Your task to perform on an android device: open app "Upside-Cash back on gas & food" Image 0: 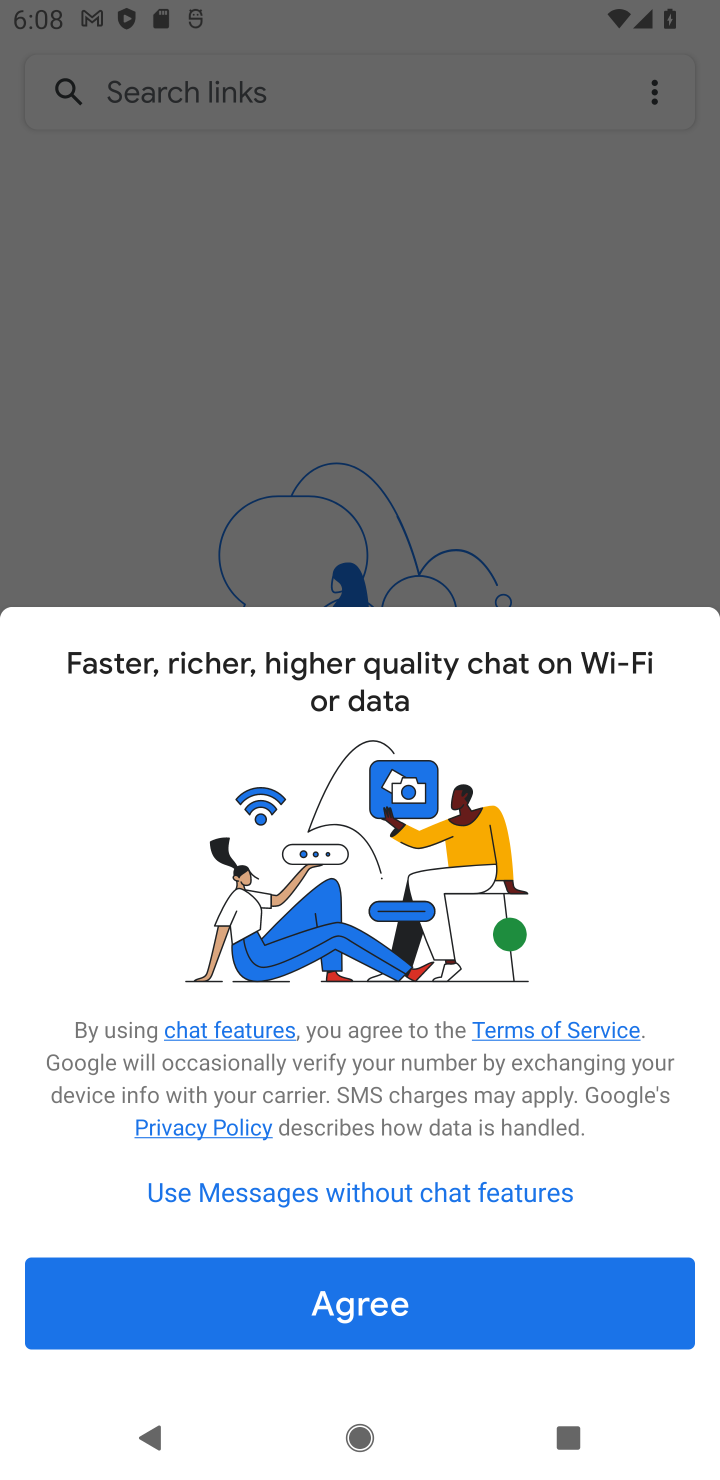
Step 0: press home button
Your task to perform on an android device: open app "Upside-Cash back on gas & food" Image 1: 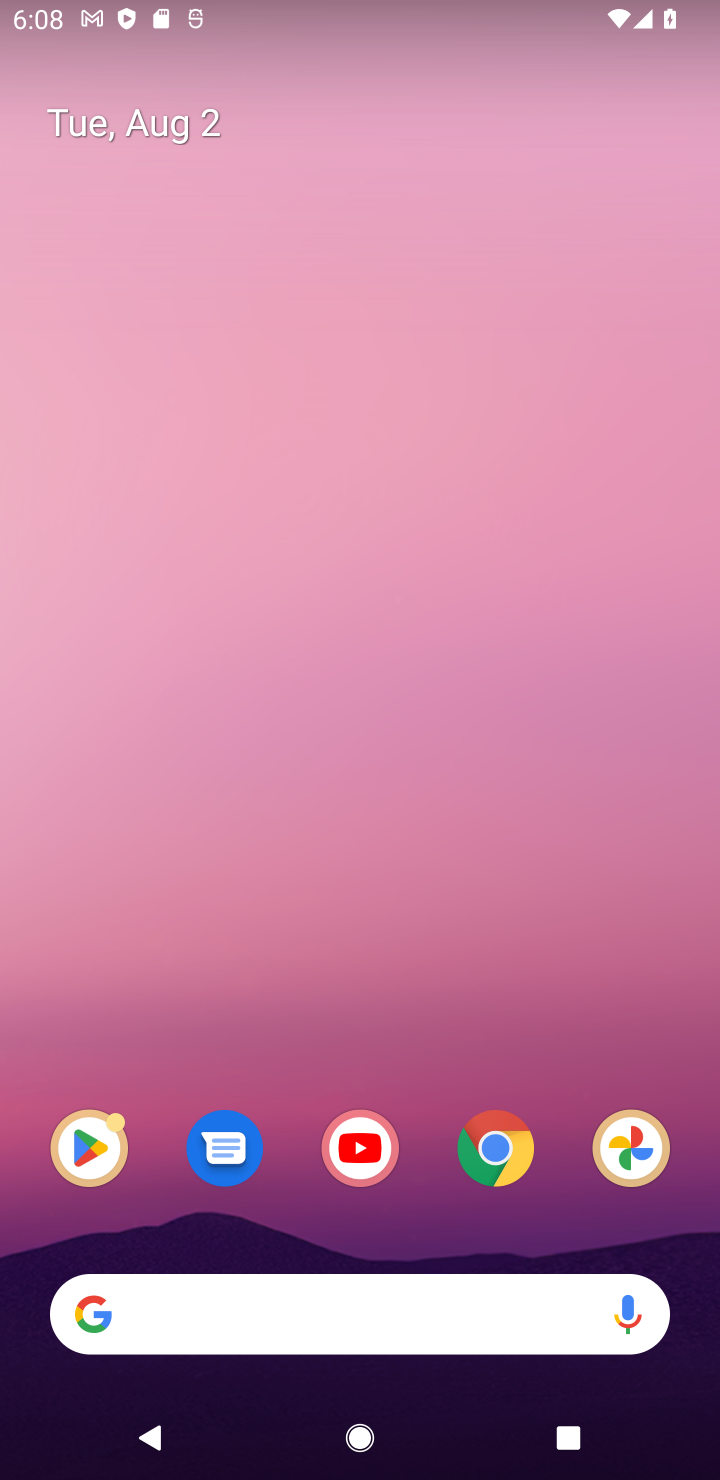
Step 1: drag from (569, 992) to (382, 63)
Your task to perform on an android device: open app "Upside-Cash back on gas & food" Image 2: 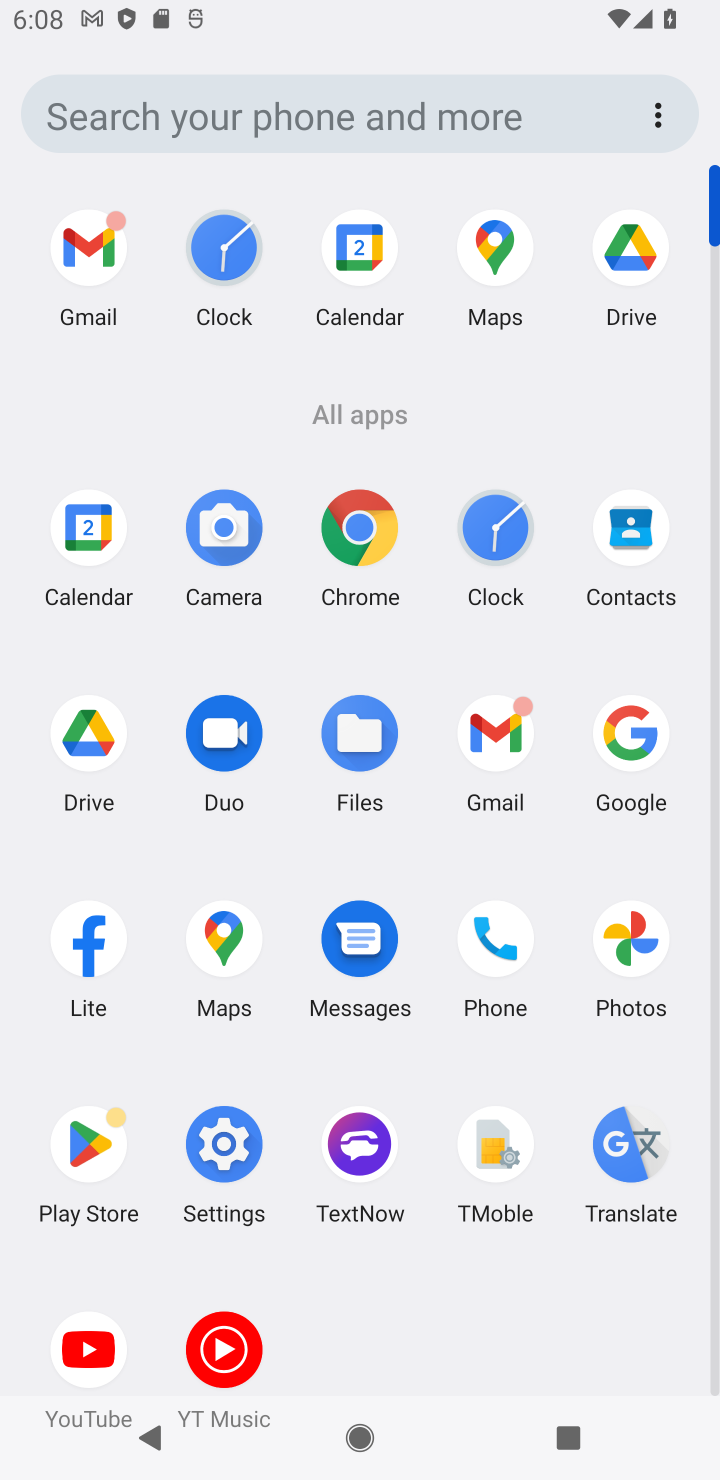
Step 2: click (65, 1158)
Your task to perform on an android device: open app "Upside-Cash back on gas & food" Image 3: 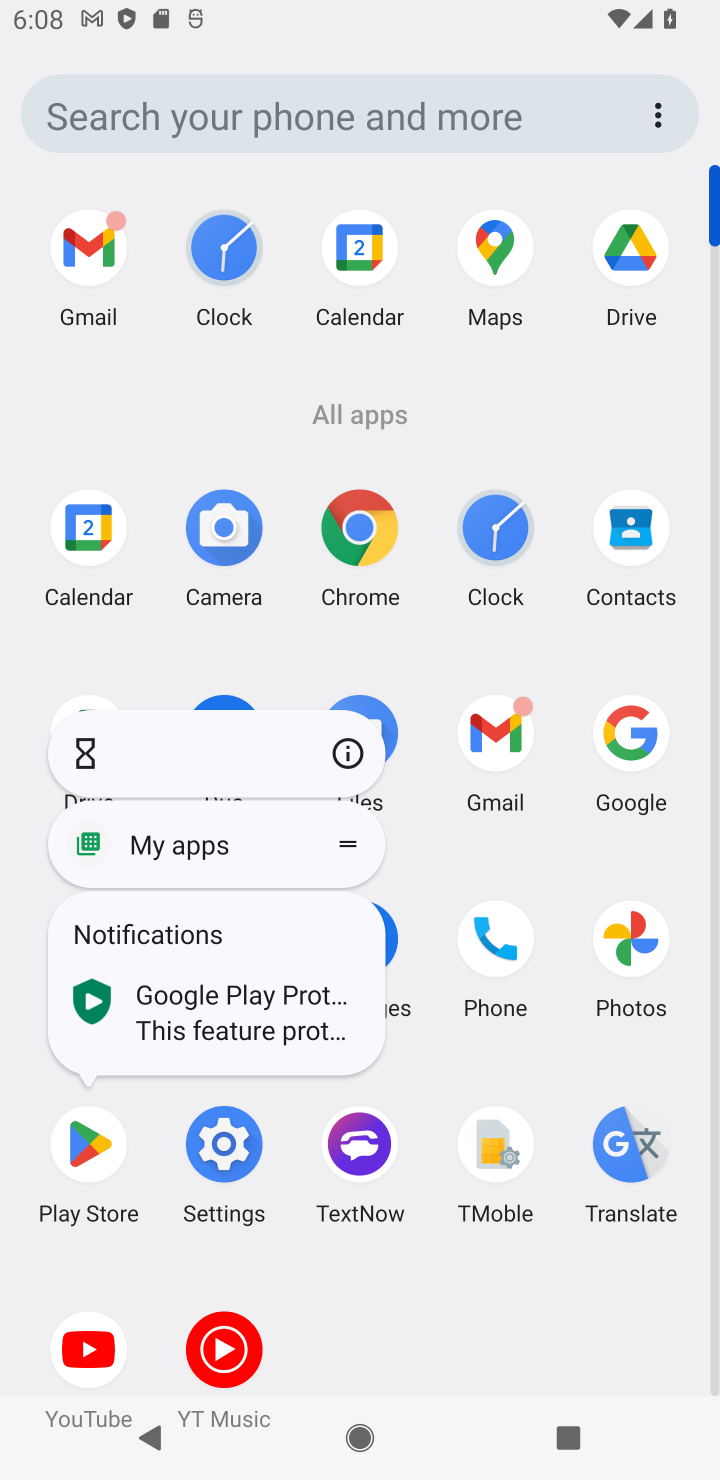
Step 3: click (91, 1163)
Your task to perform on an android device: open app "Upside-Cash back on gas & food" Image 4: 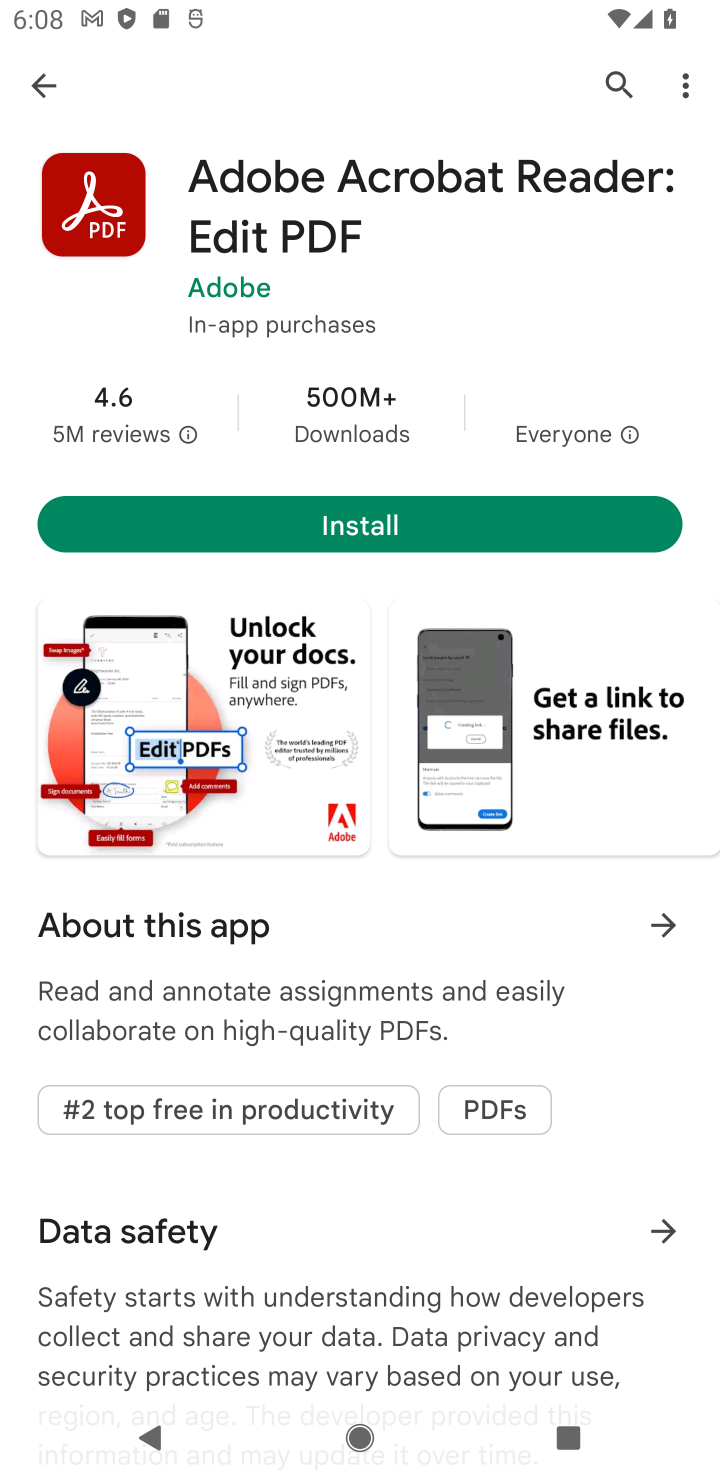
Step 4: press back button
Your task to perform on an android device: open app "Upside-Cash back on gas & food" Image 5: 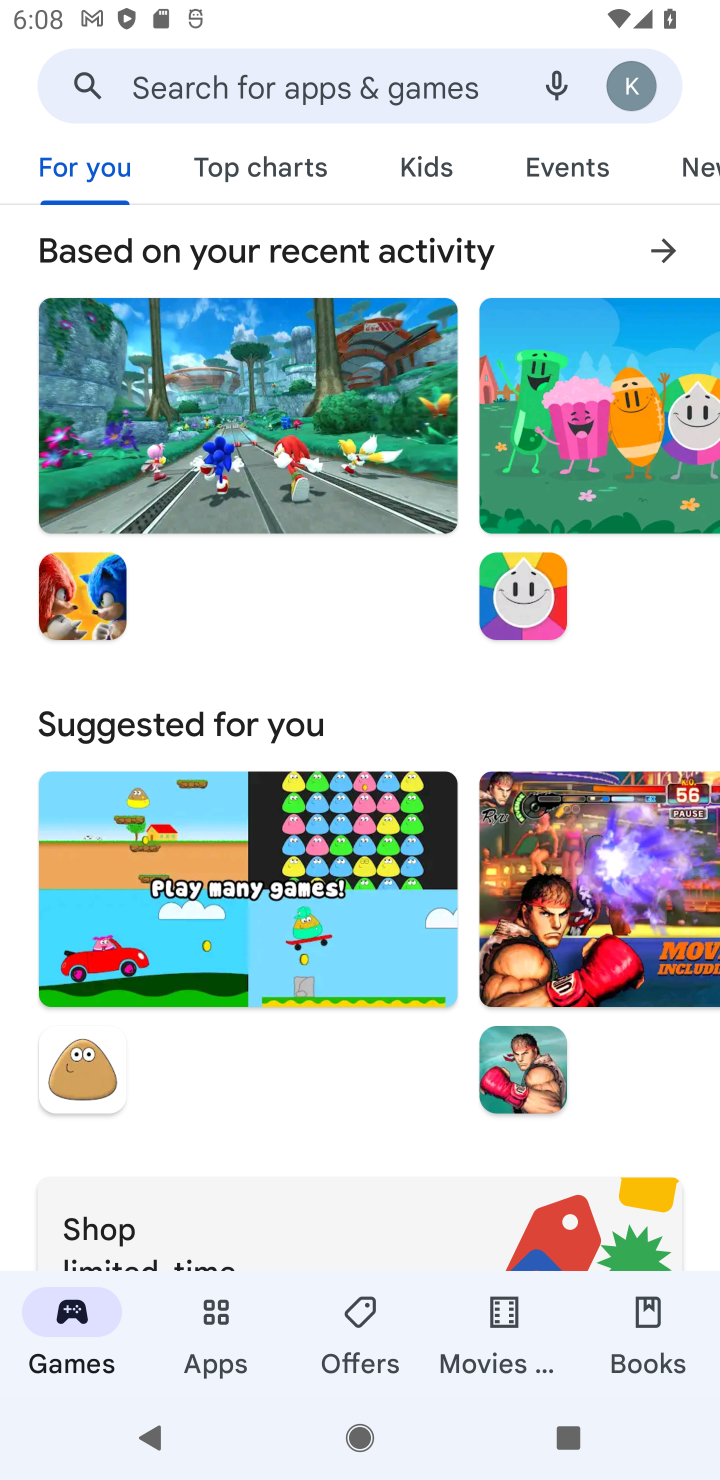
Step 5: click (380, 98)
Your task to perform on an android device: open app "Upside-Cash back on gas & food" Image 6: 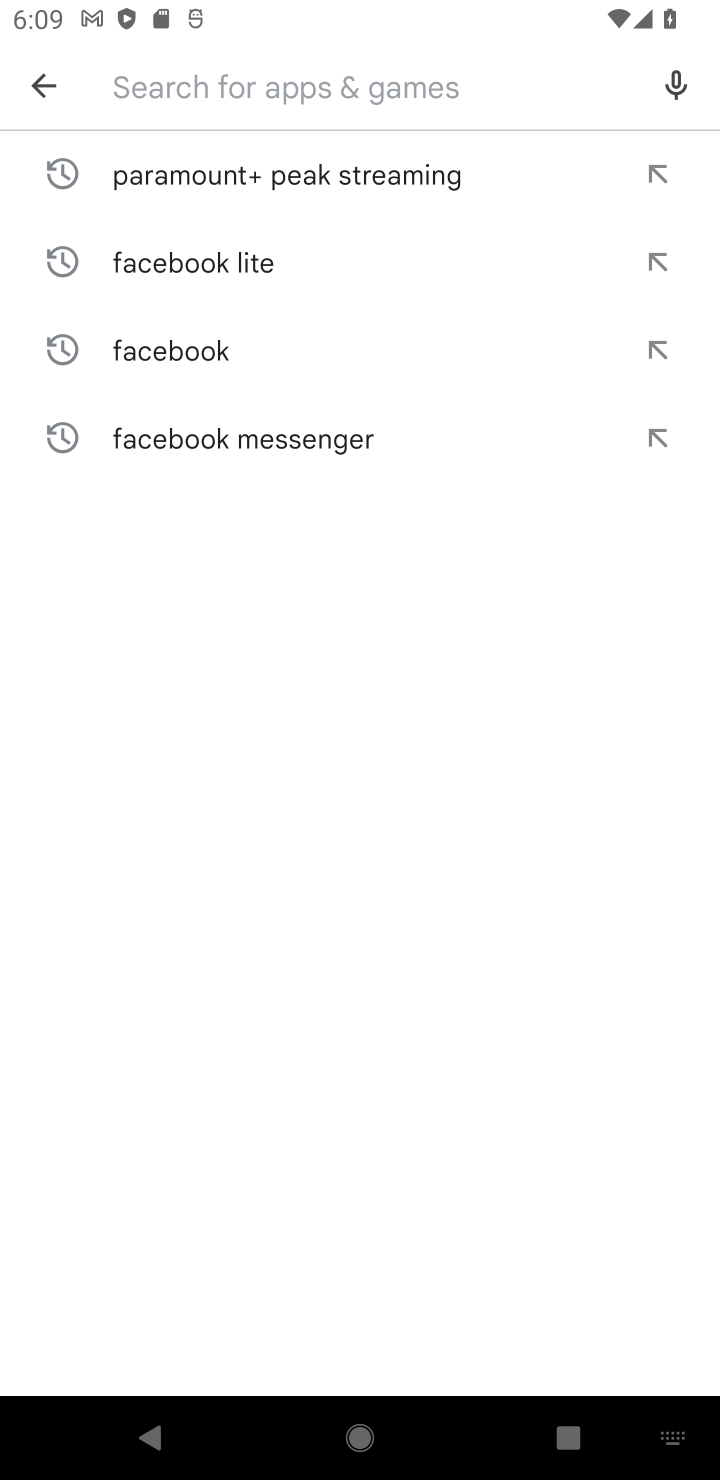
Step 6: type "Upside-Cash back on gas & food"
Your task to perform on an android device: open app "Upside-Cash back on gas & food" Image 7: 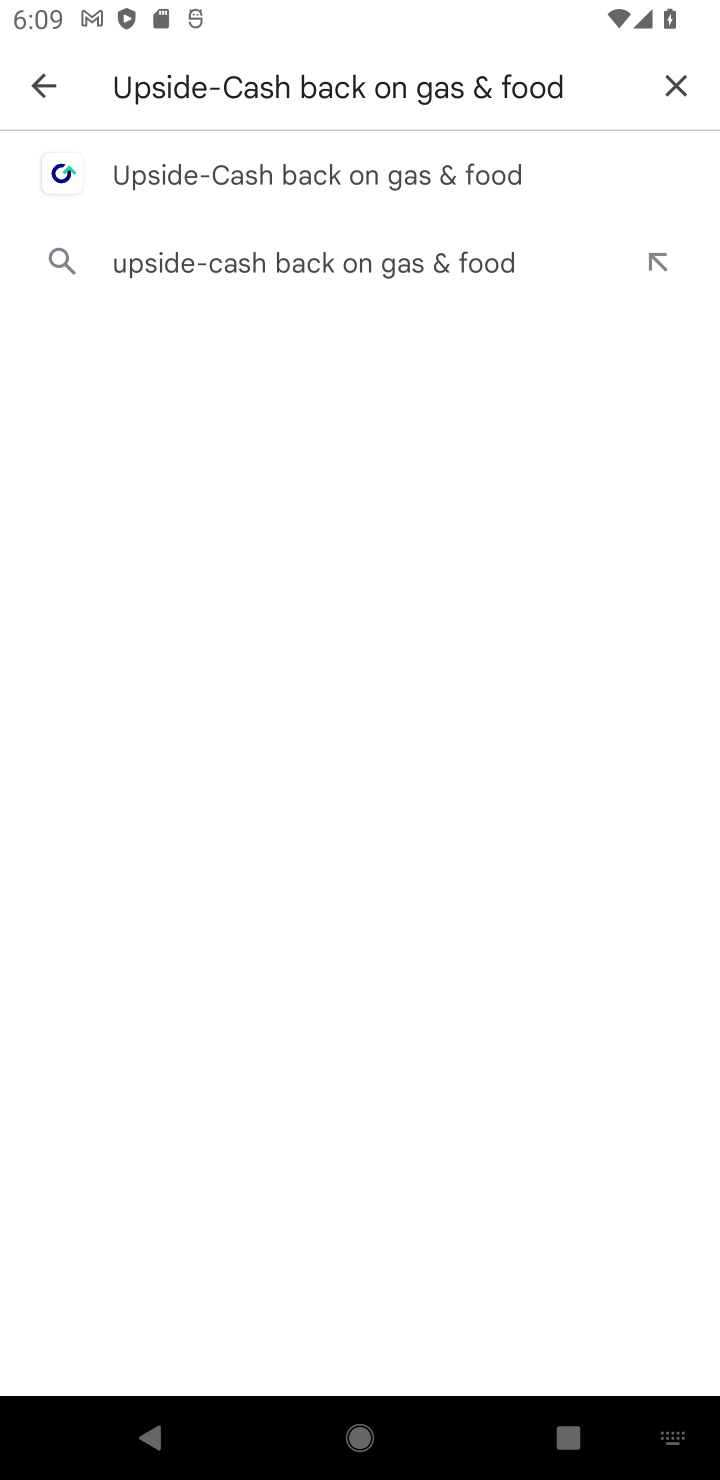
Step 7: click (278, 170)
Your task to perform on an android device: open app "Upside-Cash back on gas & food" Image 8: 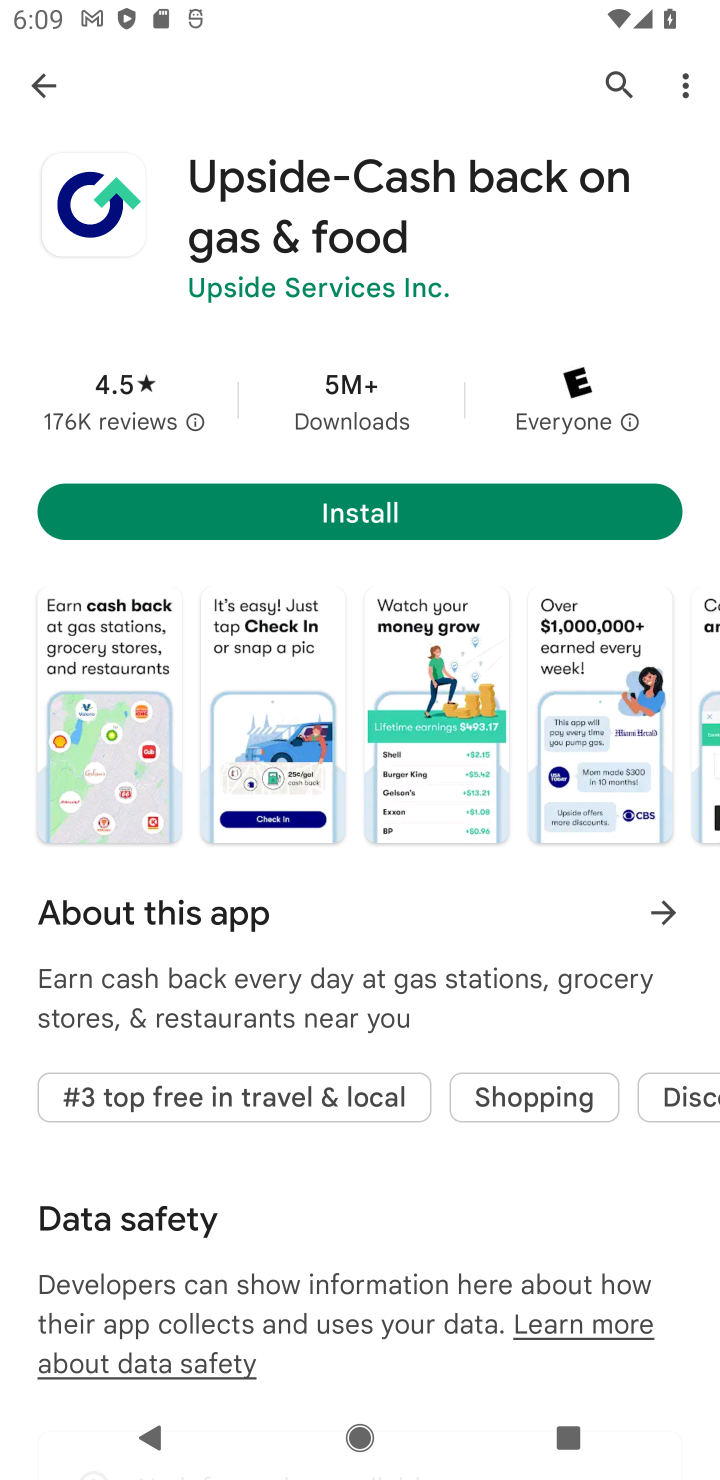
Step 8: task complete